Your task to perform on an android device: View the shopping cart on target.com. Add duracell triple a to the cart on target.com Image 0: 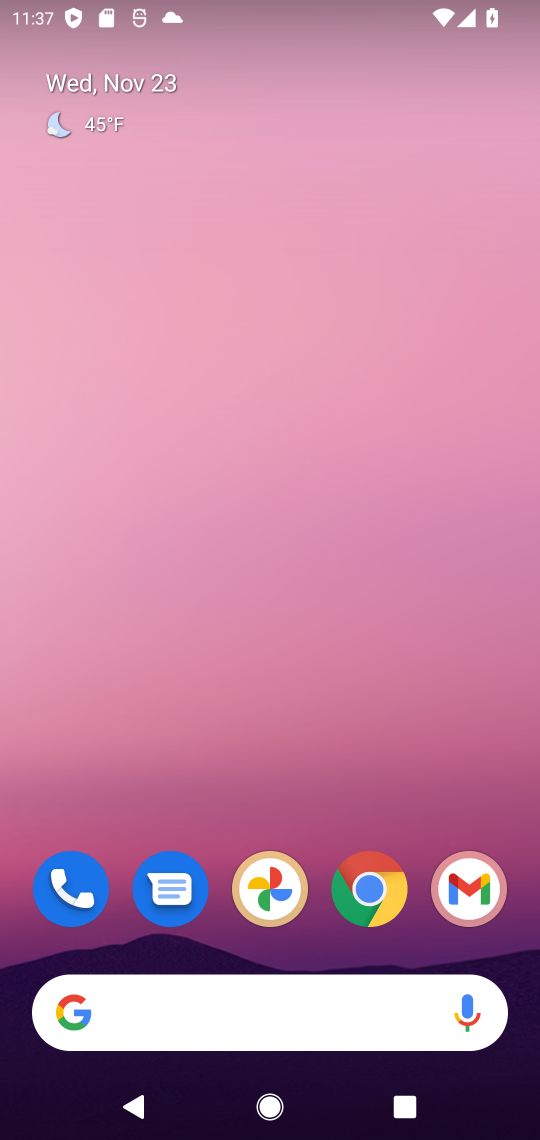
Step 0: click (368, 901)
Your task to perform on an android device: View the shopping cart on target.com. Add duracell triple a to the cart on target.com Image 1: 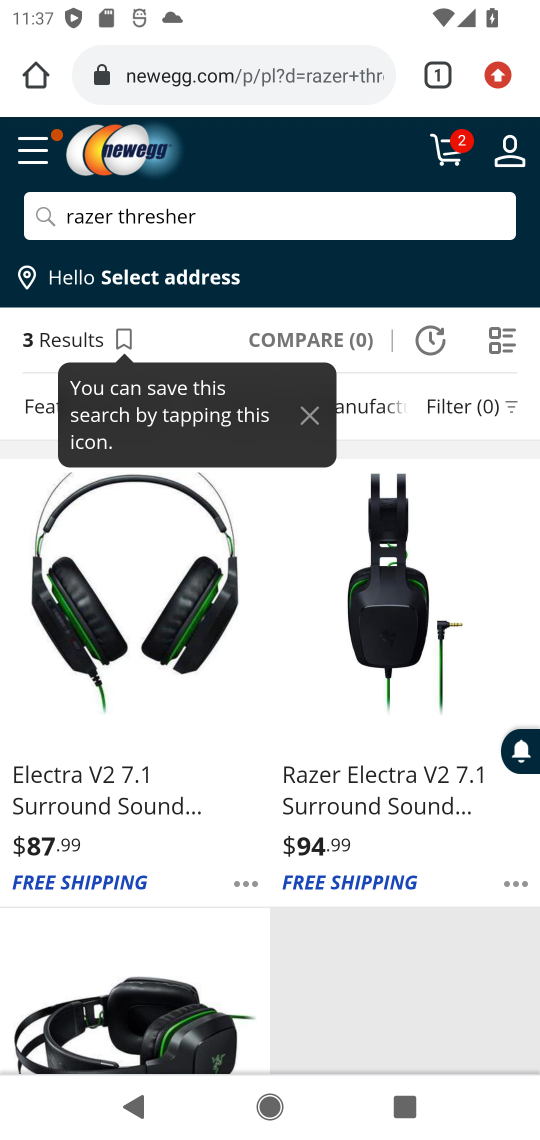
Step 1: click (213, 84)
Your task to perform on an android device: View the shopping cart on target.com. Add duracell triple a to the cart on target.com Image 2: 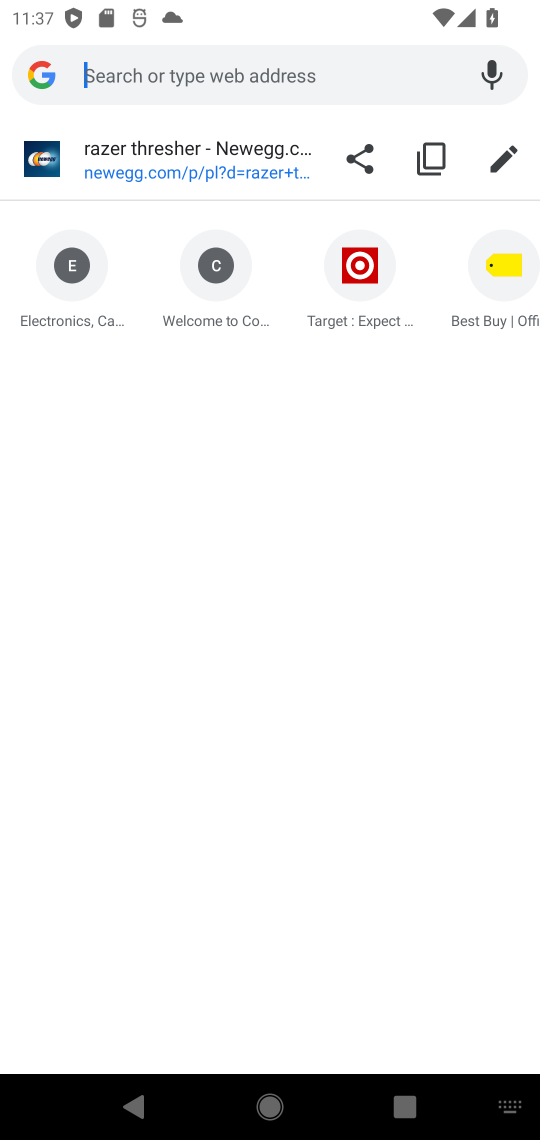
Step 2: click (367, 307)
Your task to perform on an android device: View the shopping cart on target.com. Add duracell triple a to the cart on target.com Image 3: 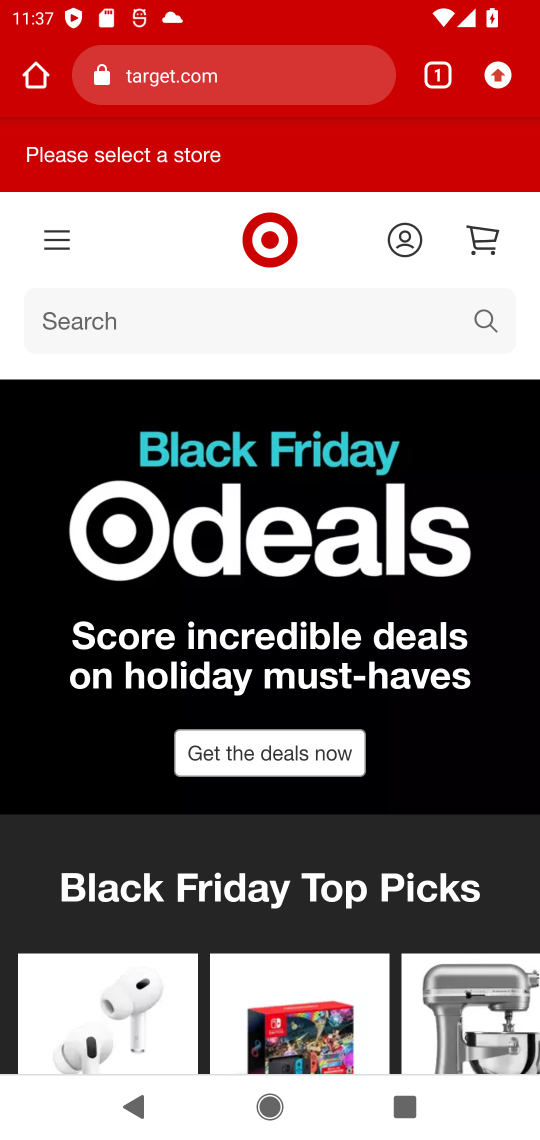
Step 3: click (475, 250)
Your task to perform on an android device: View the shopping cart on target.com. Add duracell triple a to the cart on target.com Image 4: 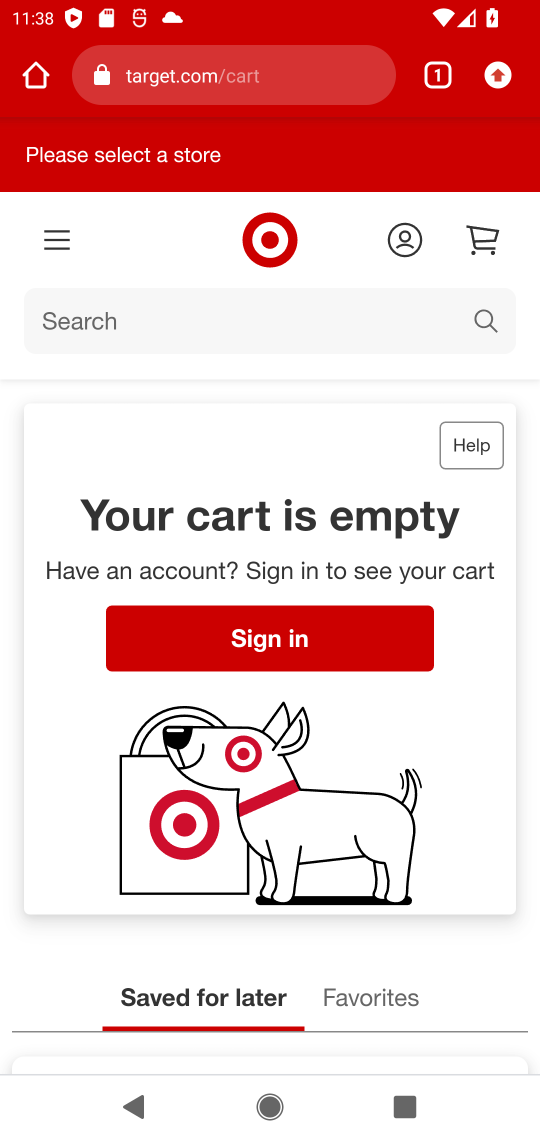
Step 4: click (472, 318)
Your task to perform on an android device: View the shopping cart on target.com. Add duracell triple a to the cart on target.com Image 5: 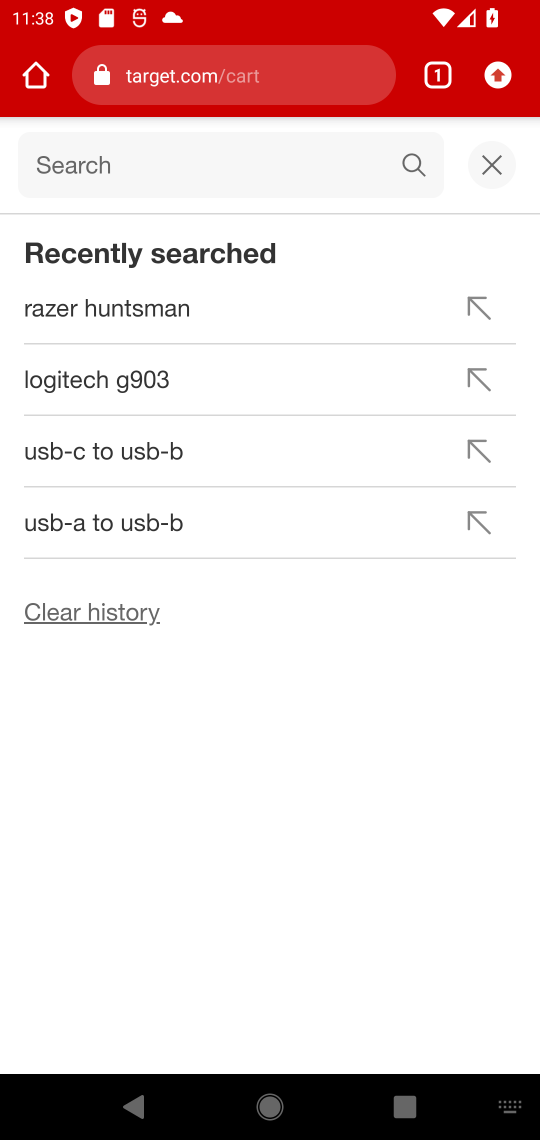
Step 5: type "duracell triple a"
Your task to perform on an android device: View the shopping cart on target.com. Add duracell triple a to the cart on target.com Image 6: 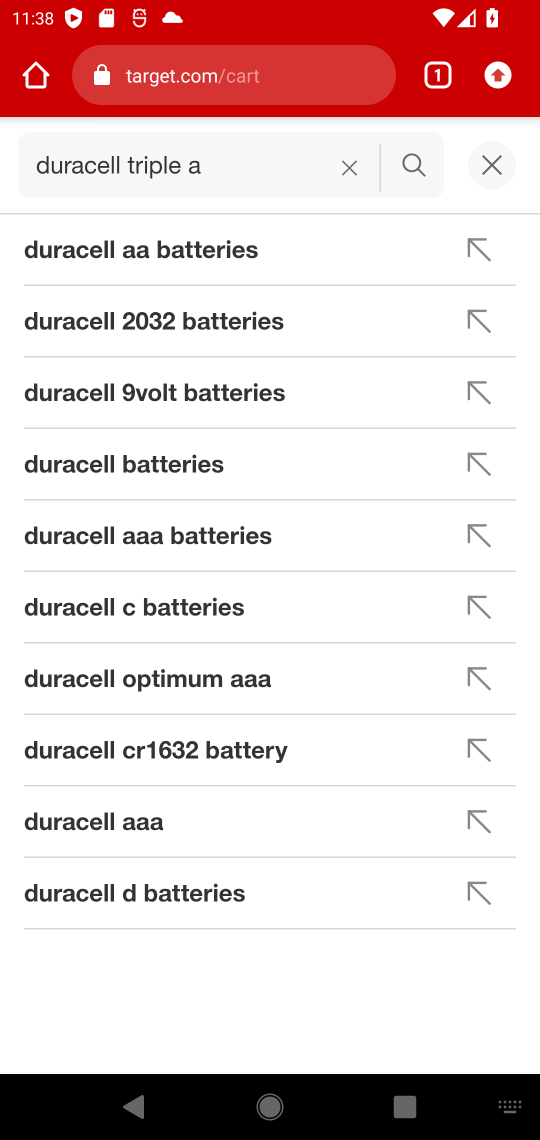
Step 6: click (412, 163)
Your task to perform on an android device: View the shopping cart on target.com. Add duracell triple a to the cart on target.com Image 7: 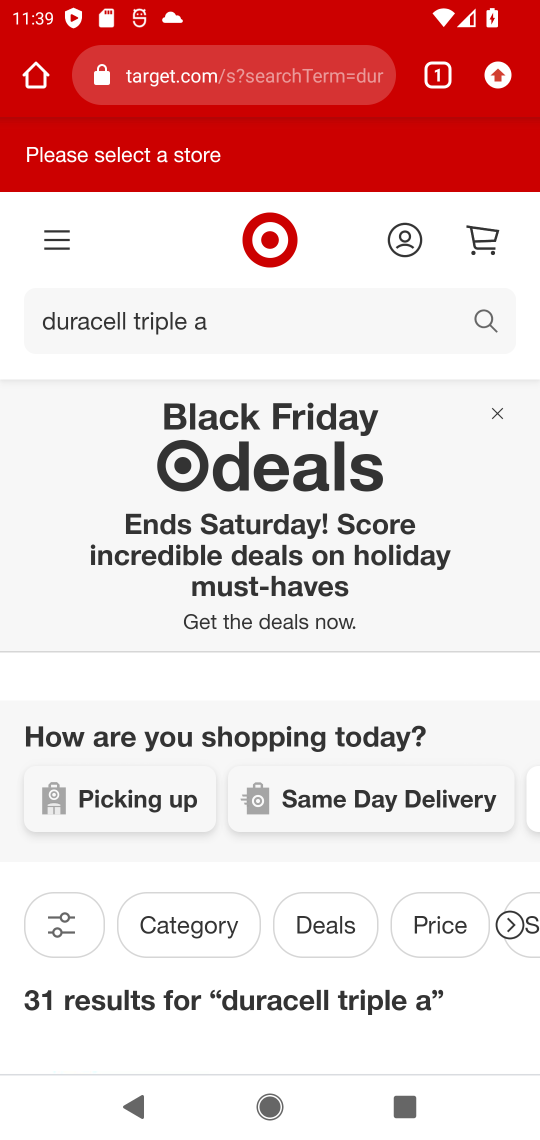
Step 7: drag from (224, 844) to (241, 384)
Your task to perform on an android device: View the shopping cart on target.com. Add duracell triple a to the cart on target.com Image 8: 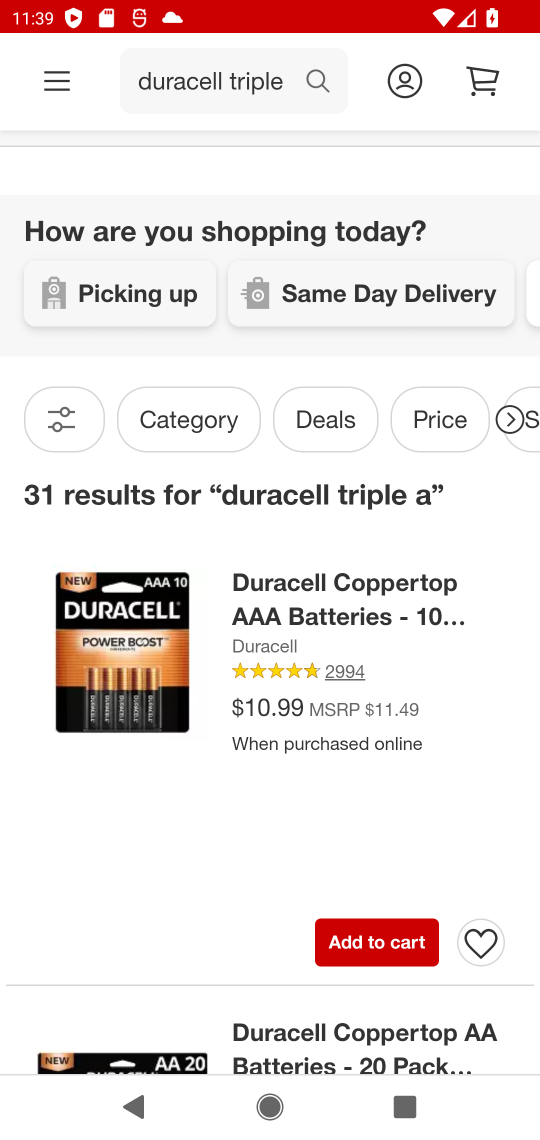
Step 8: click (375, 948)
Your task to perform on an android device: View the shopping cart on target.com. Add duracell triple a to the cart on target.com Image 9: 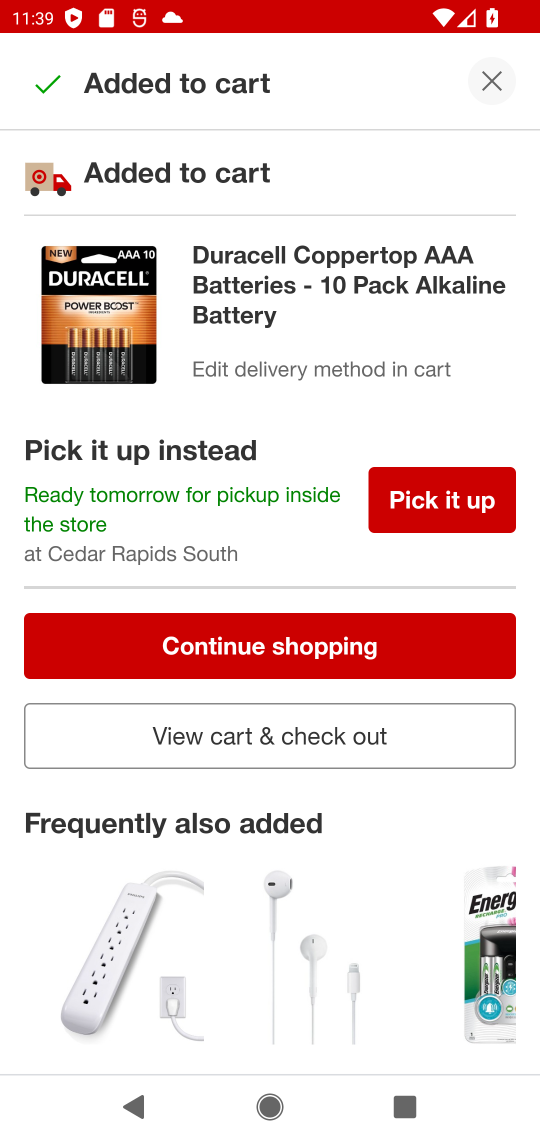
Step 9: task complete